Your task to perform on an android device: Open ESPN.com Image 0: 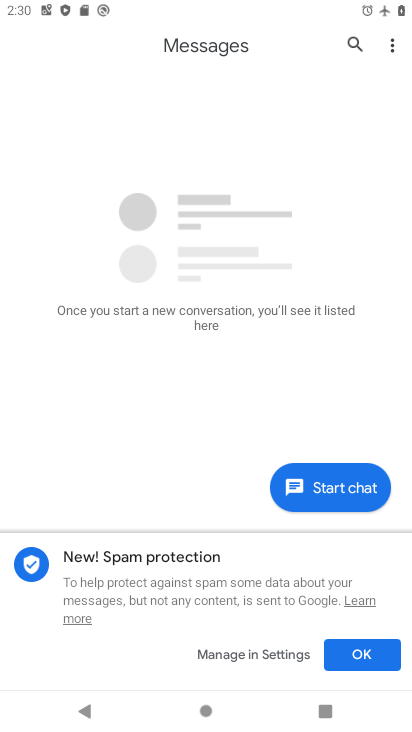
Step 0: press home button
Your task to perform on an android device: Open ESPN.com Image 1: 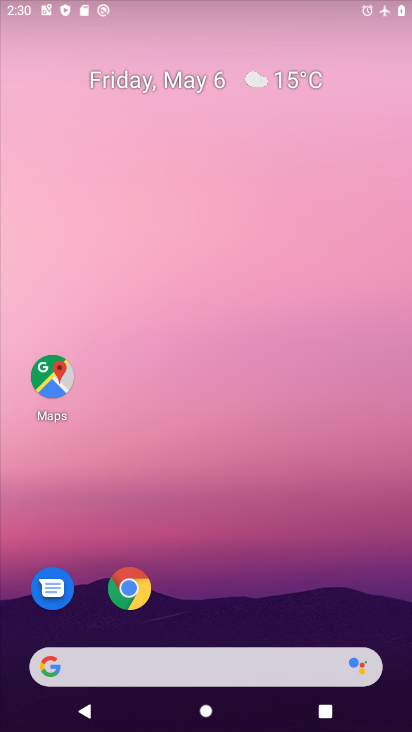
Step 1: drag from (192, 613) to (286, 337)
Your task to perform on an android device: Open ESPN.com Image 2: 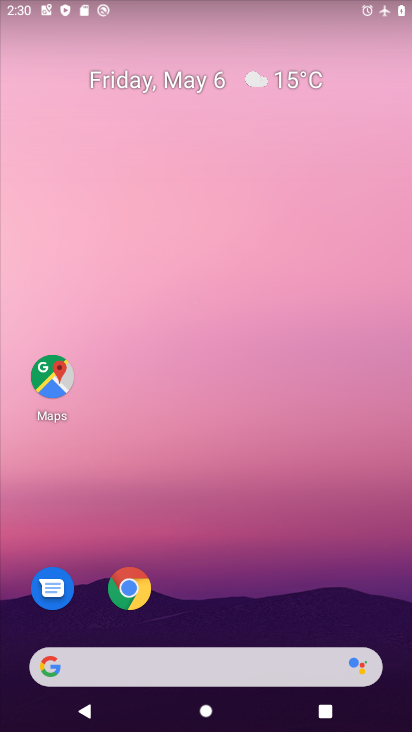
Step 2: drag from (188, 588) to (183, 251)
Your task to perform on an android device: Open ESPN.com Image 3: 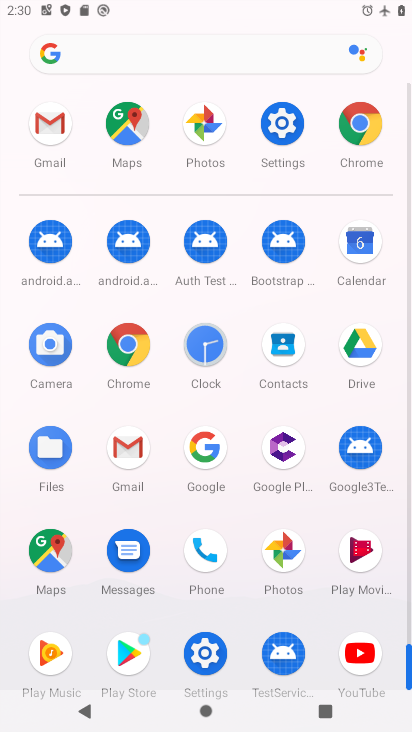
Step 3: click (279, 133)
Your task to perform on an android device: Open ESPN.com Image 4: 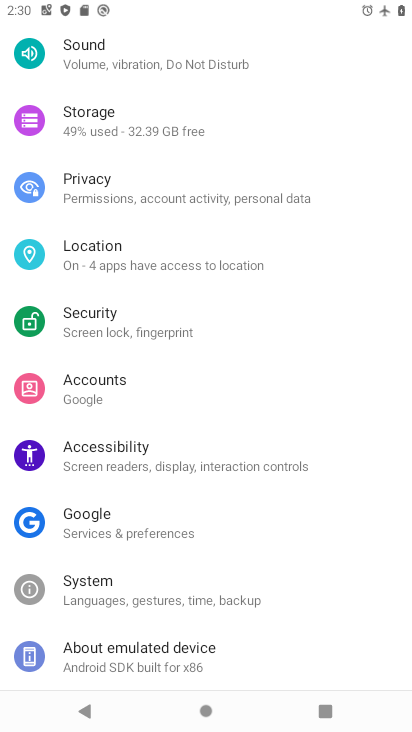
Step 4: drag from (227, 640) to (295, 169)
Your task to perform on an android device: Open ESPN.com Image 5: 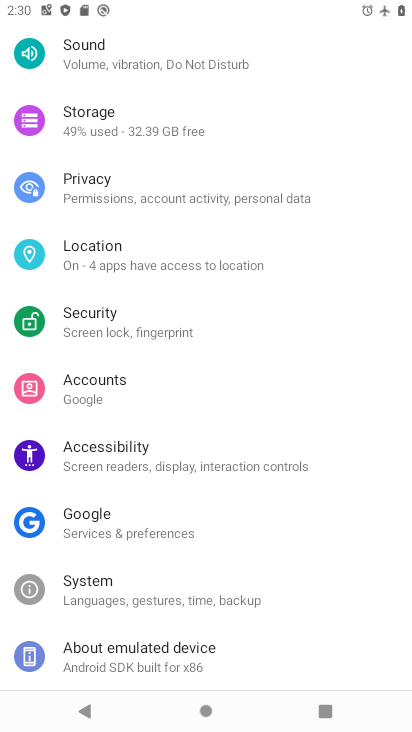
Step 5: press back button
Your task to perform on an android device: Open ESPN.com Image 6: 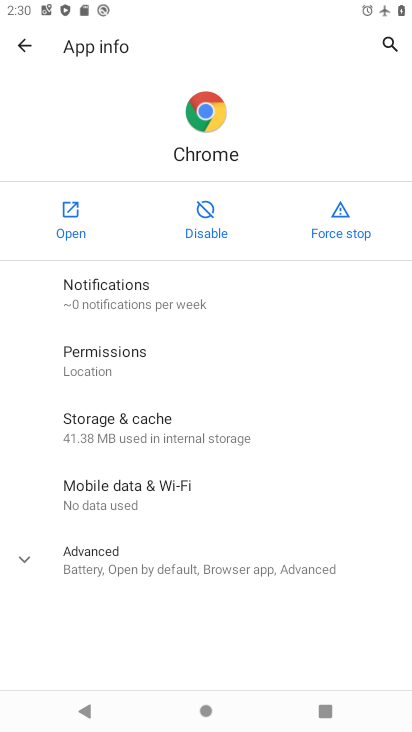
Step 6: click (54, 209)
Your task to perform on an android device: Open ESPN.com Image 7: 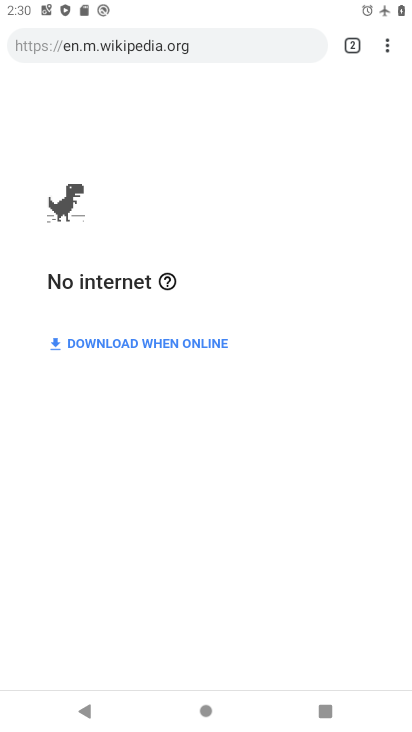
Step 7: click (127, 43)
Your task to perform on an android device: Open ESPN.com Image 8: 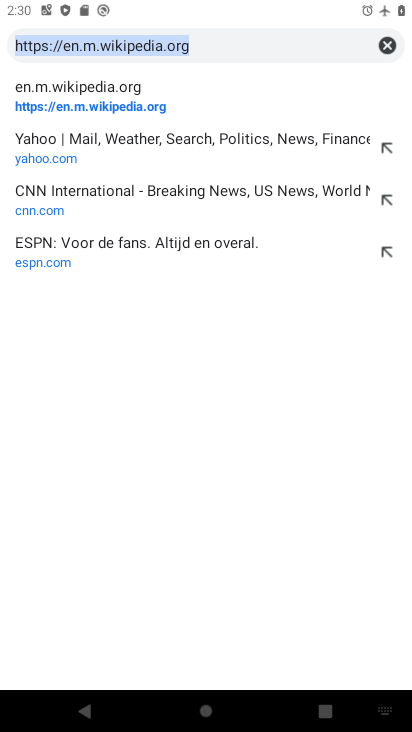
Step 8: click (373, 41)
Your task to perform on an android device: Open ESPN.com Image 9: 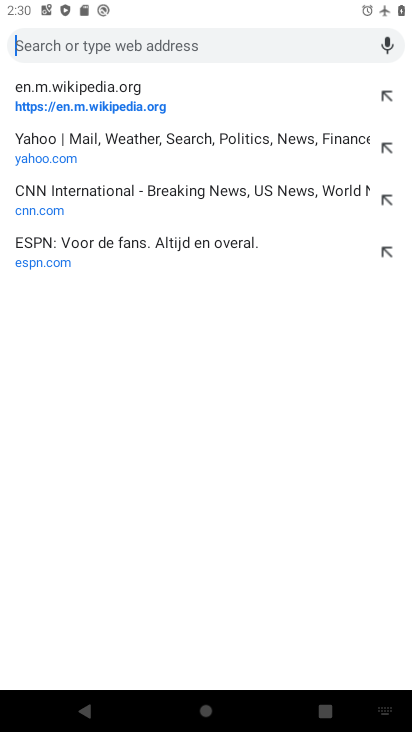
Step 9: click (384, 45)
Your task to perform on an android device: Open ESPN.com Image 10: 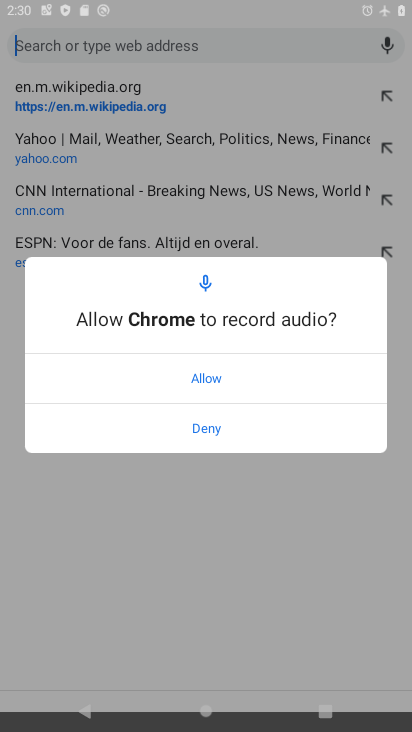
Step 10: click (120, 38)
Your task to perform on an android device: Open ESPN.com Image 11: 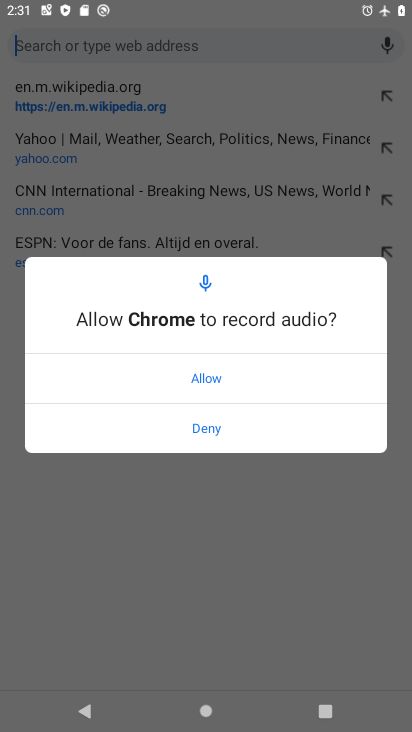
Step 11: click (209, 376)
Your task to perform on an android device: Open ESPN.com Image 12: 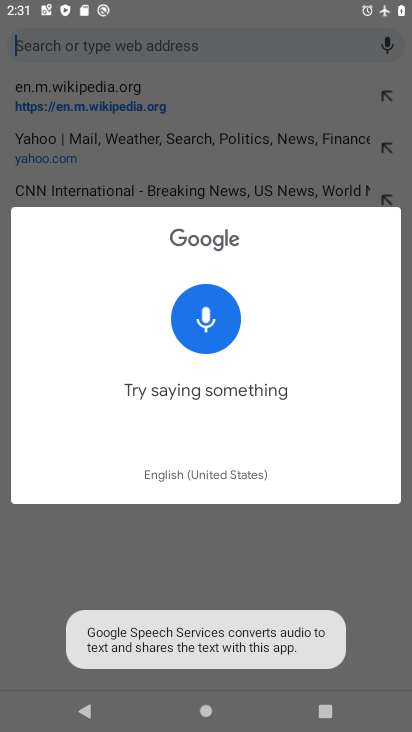
Step 12: click (127, 41)
Your task to perform on an android device: Open ESPN.com Image 13: 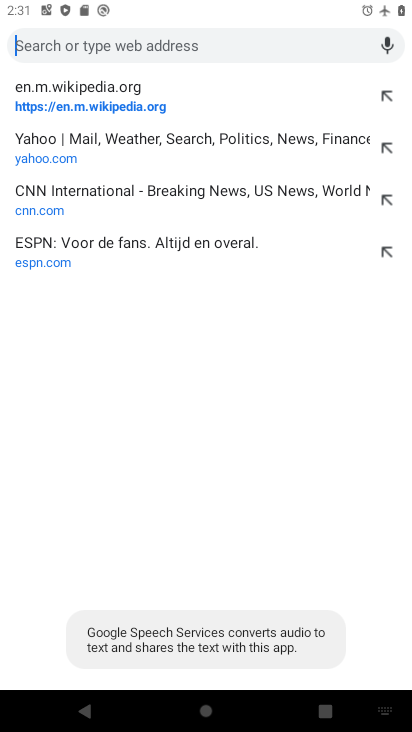
Step 13: click (145, 44)
Your task to perform on an android device: Open ESPN.com Image 14: 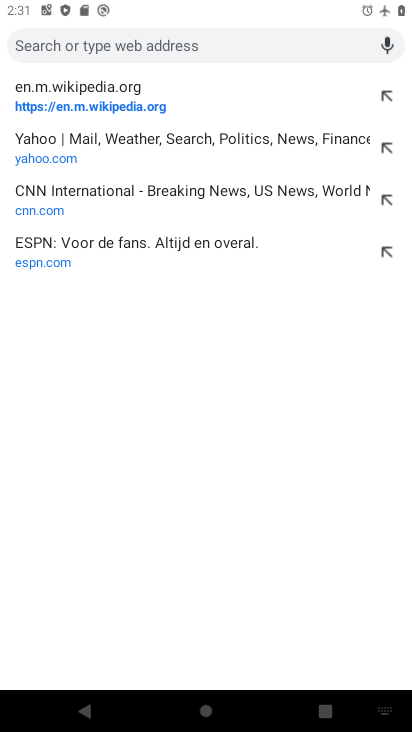
Step 14: type "espn"
Your task to perform on an android device: Open ESPN.com Image 15: 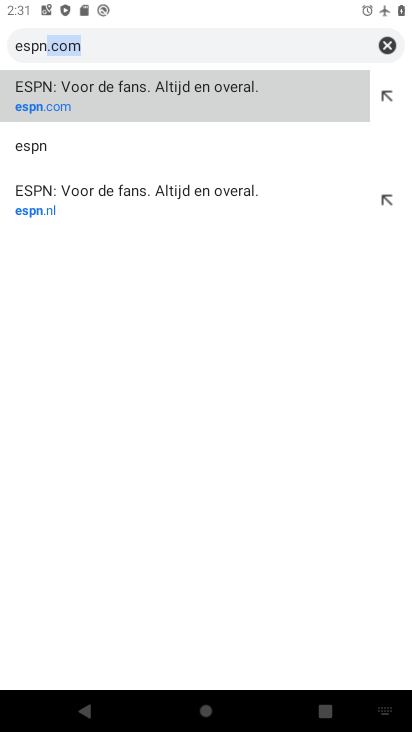
Step 15: click (42, 102)
Your task to perform on an android device: Open ESPN.com Image 16: 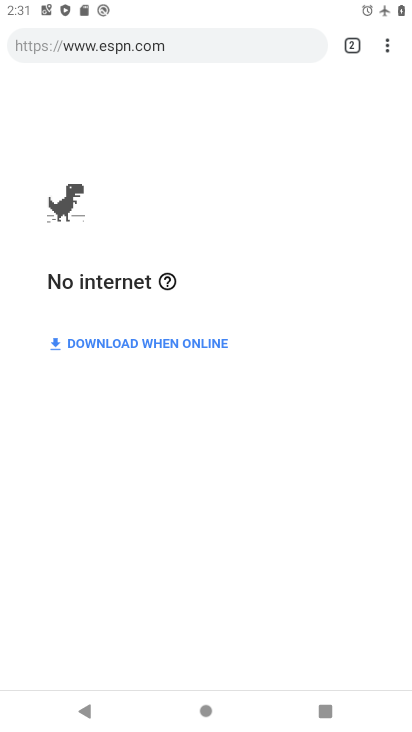
Step 16: task complete